Your task to perform on an android device: turn notification dots on Image 0: 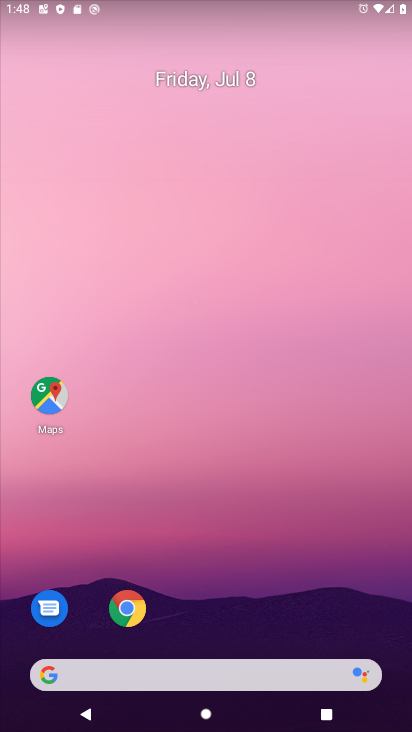
Step 0: click (201, 665)
Your task to perform on an android device: turn notification dots on Image 1: 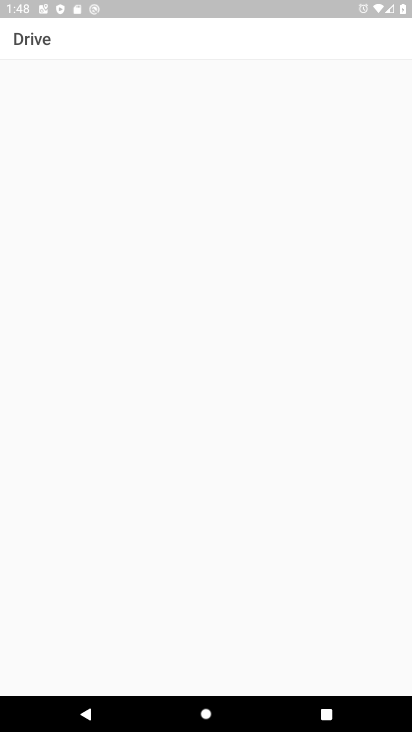
Step 1: click (122, 617)
Your task to perform on an android device: turn notification dots on Image 2: 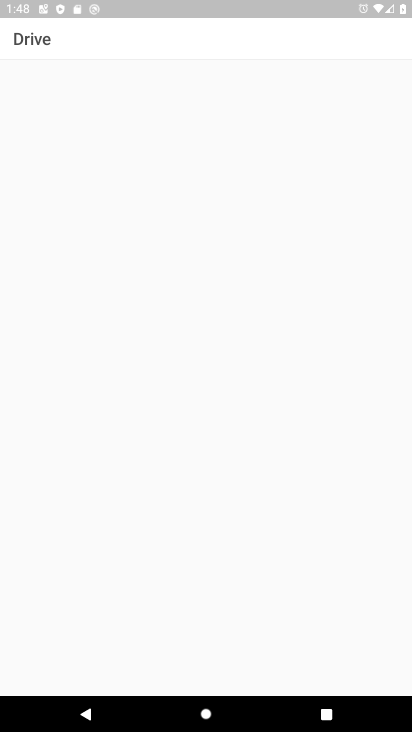
Step 2: drag from (234, 12) to (247, 545)
Your task to perform on an android device: turn notification dots on Image 3: 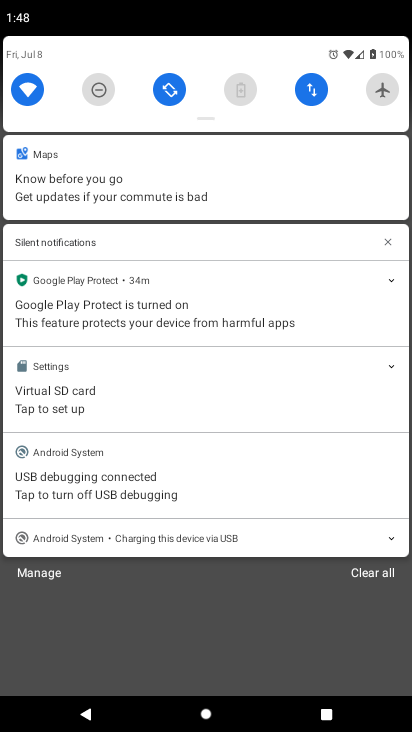
Step 3: drag from (217, 47) to (226, 437)
Your task to perform on an android device: turn notification dots on Image 4: 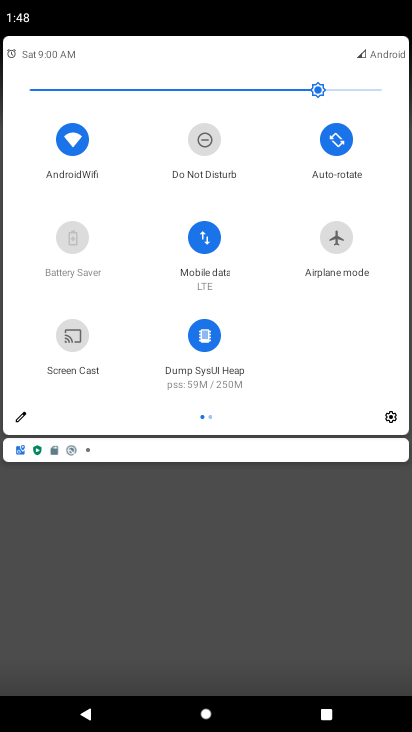
Step 4: click (392, 413)
Your task to perform on an android device: turn notification dots on Image 5: 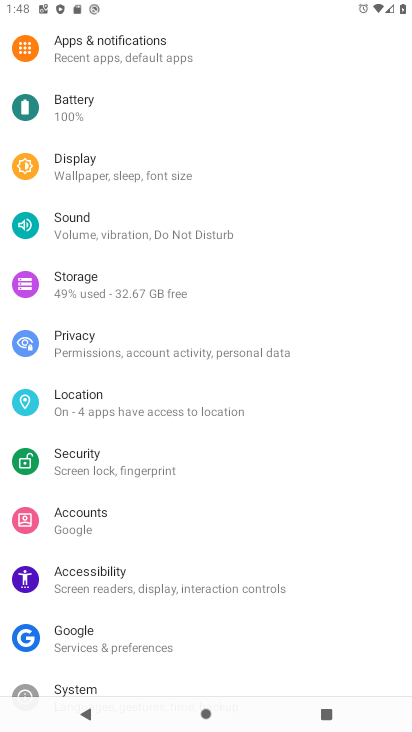
Step 5: click (157, 42)
Your task to perform on an android device: turn notification dots on Image 6: 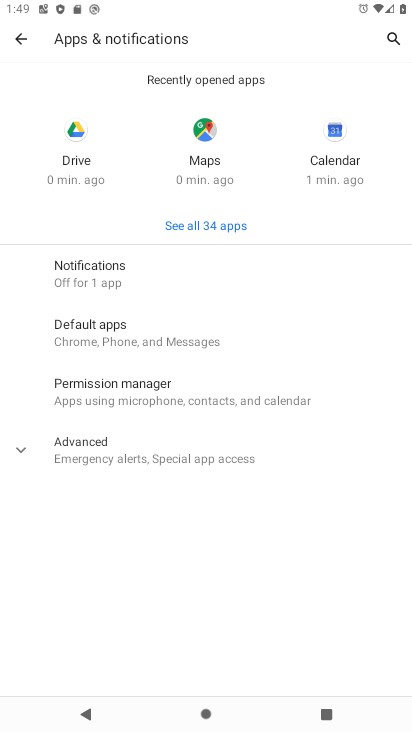
Step 6: click (146, 277)
Your task to perform on an android device: turn notification dots on Image 7: 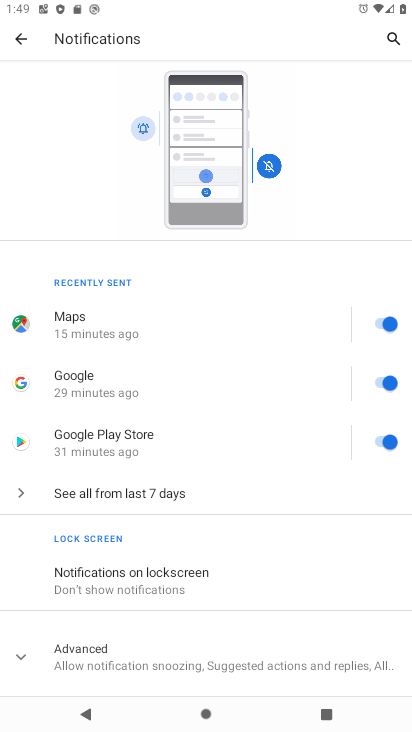
Step 7: click (198, 660)
Your task to perform on an android device: turn notification dots on Image 8: 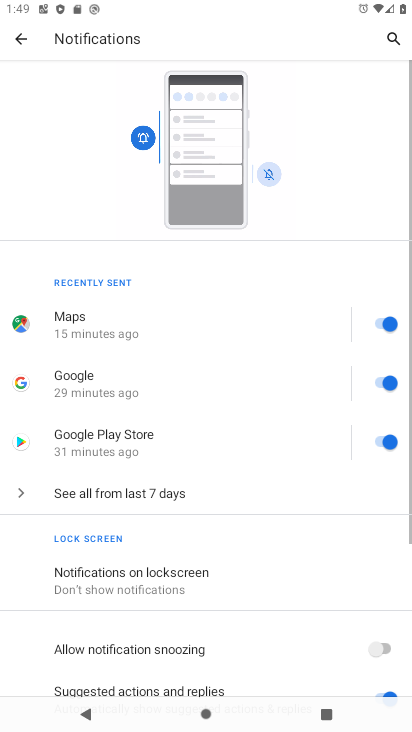
Step 8: task complete